Your task to perform on an android device: turn off picture-in-picture Image 0: 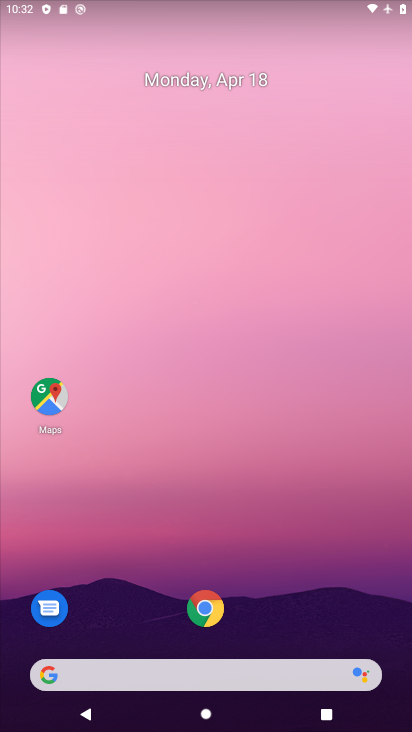
Step 0: drag from (269, 624) to (252, 166)
Your task to perform on an android device: turn off picture-in-picture Image 1: 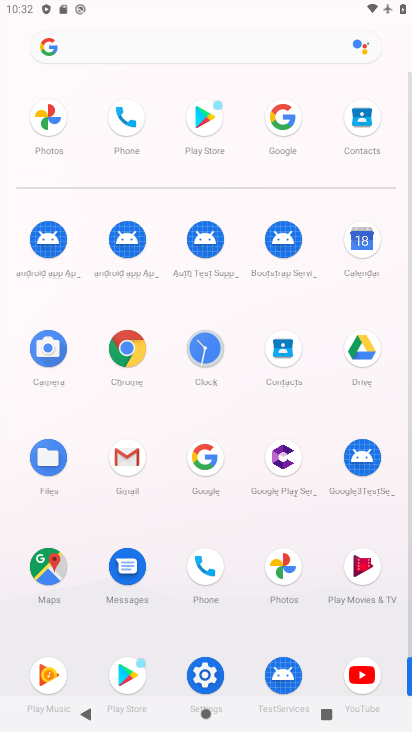
Step 1: click (212, 679)
Your task to perform on an android device: turn off picture-in-picture Image 2: 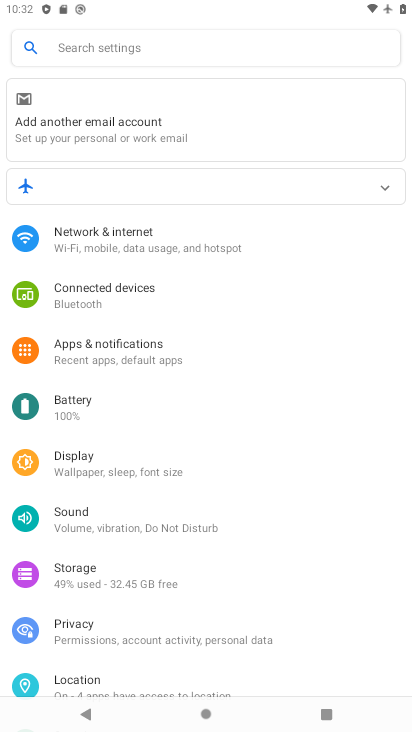
Step 2: click (150, 358)
Your task to perform on an android device: turn off picture-in-picture Image 3: 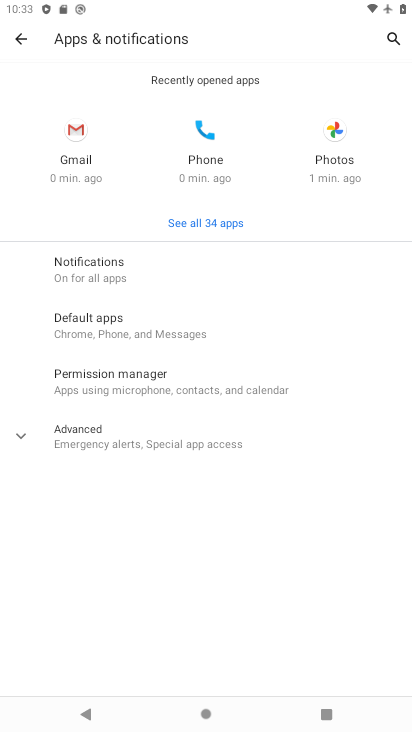
Step 3: click (20, 434)
Your task to perform on an android device: turn off picture-in-picture Image 4: 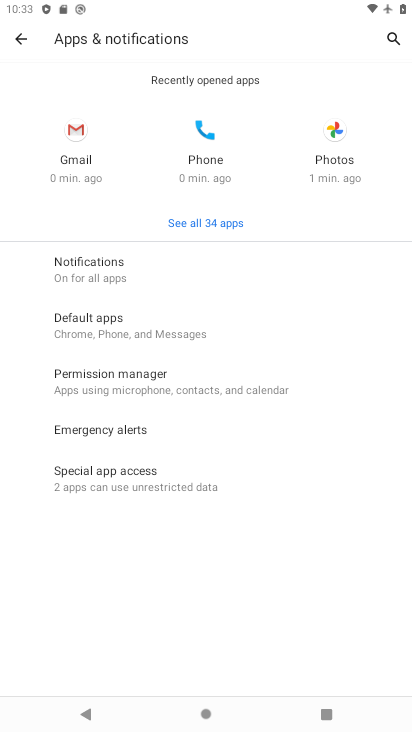
Step 4: click (129, 483)
Your task to perform on an android device: turn off picture-in-picture Image 5: 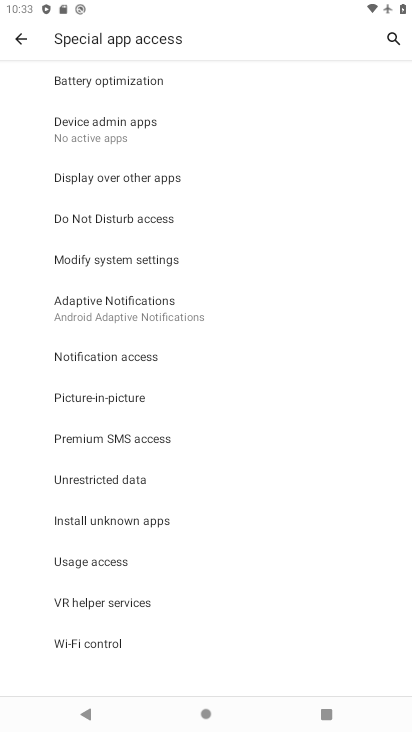
Step 5: click (112, 404)
Your task to perform on an android device: turn off picture-in-picture Image 6: 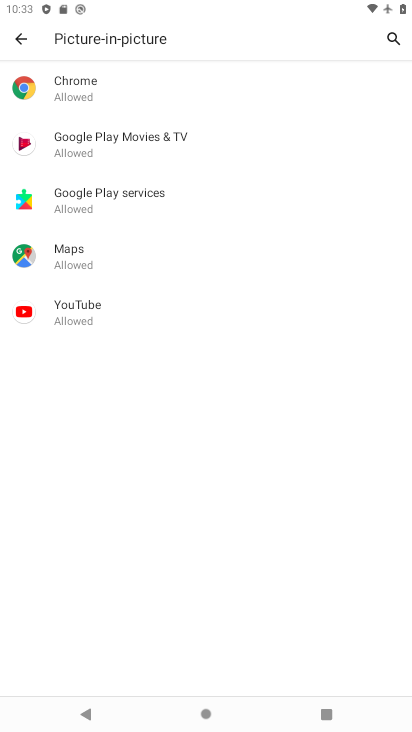
Step 6: click (100, 82)
Your task to perform on an android device: turn off picture-in-picture Image 7: 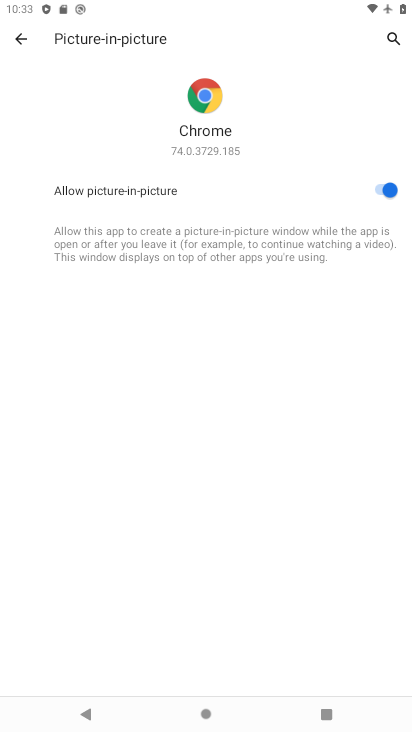
Step 7: click (390, 192)
Your task to perform on an android device: turn off picture-in-picture Image 8: 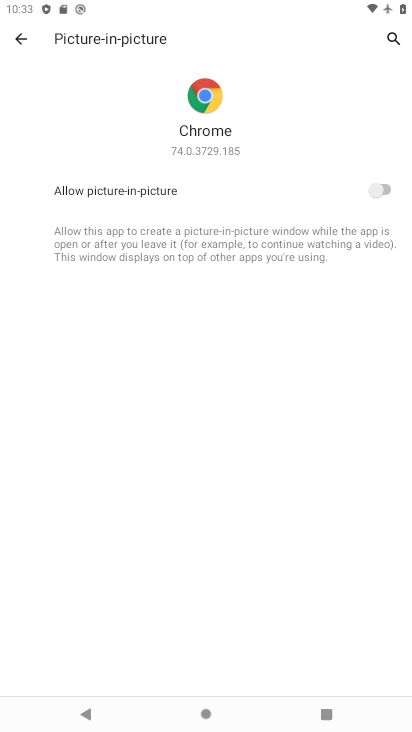
Step 8: task complete